Your task to perform on an android device: Clear the cart on walmart.com. Add usb-c to usb-a to the cart on walmart.com Image 0: 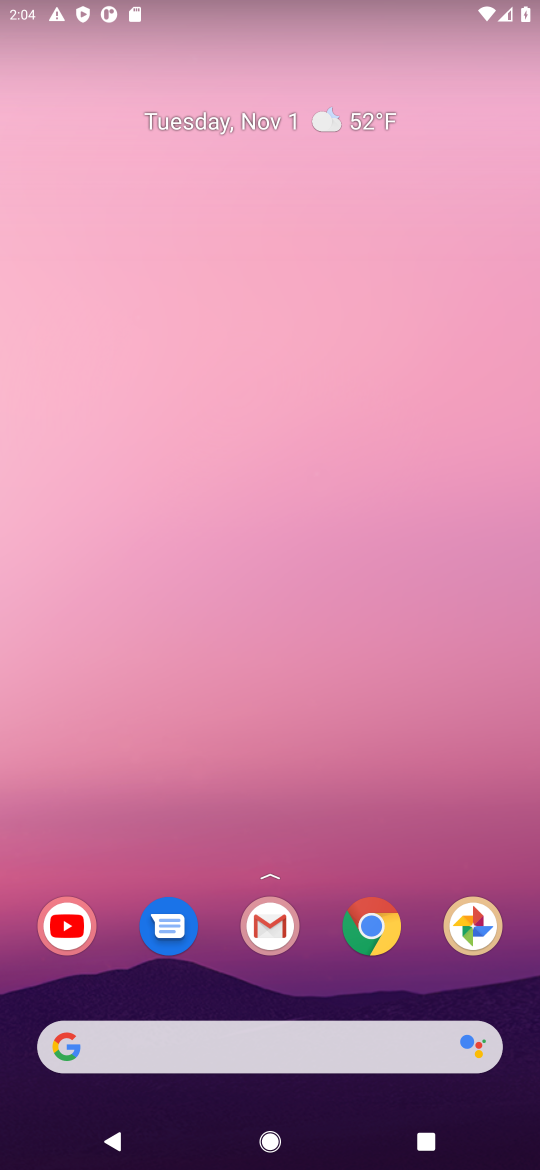
Step 0: click (377, 941)
Your task to perform on an android device: Clear the cart on walmart.com. Add usb-c to usb-a to the cart on walmart.com Image 1: 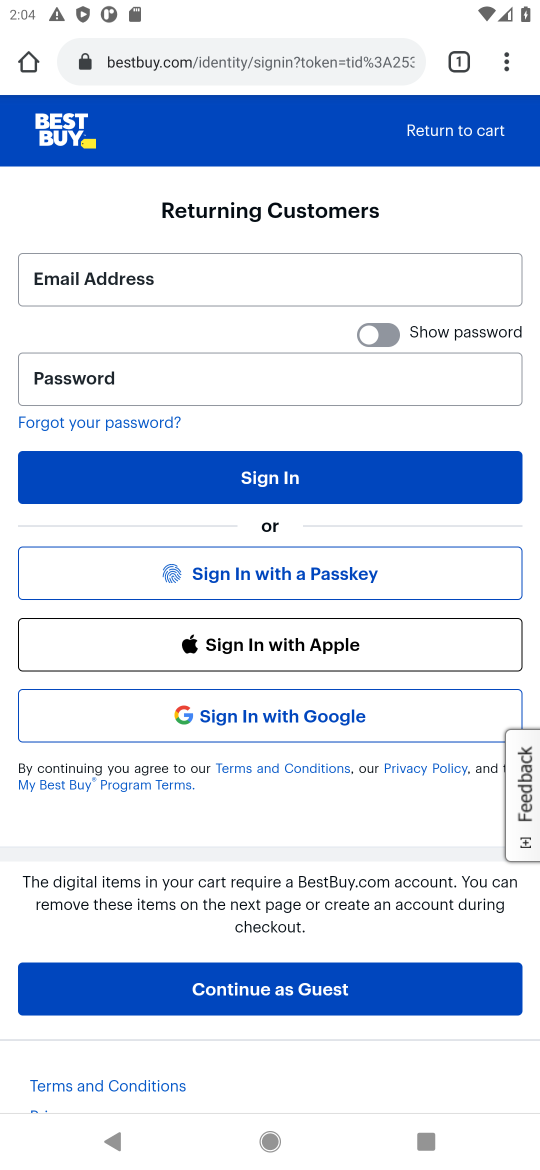
Step 1: click (256, 57)
Your task to perform on an android device: Clear the cart on walmart.com. Add usb-c to usb-a to the cart on walmart.com Image 2: 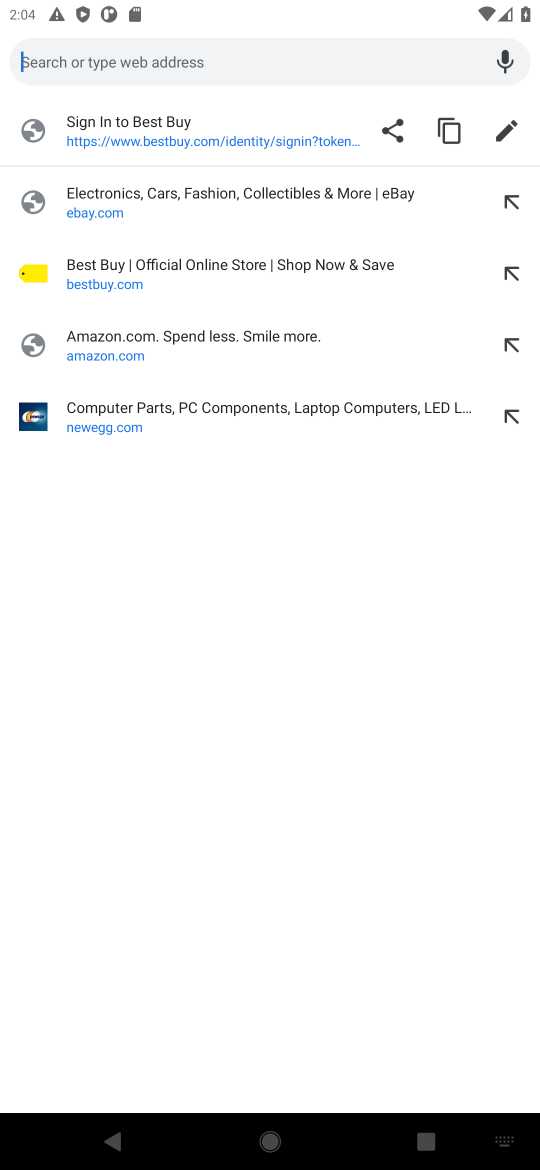
Step 2: type "walmart.com"
Your task to perform on an android device: Clear the cart on walmart.com. Add usb-c to usb-a to the cart on walmart.com Image 3: 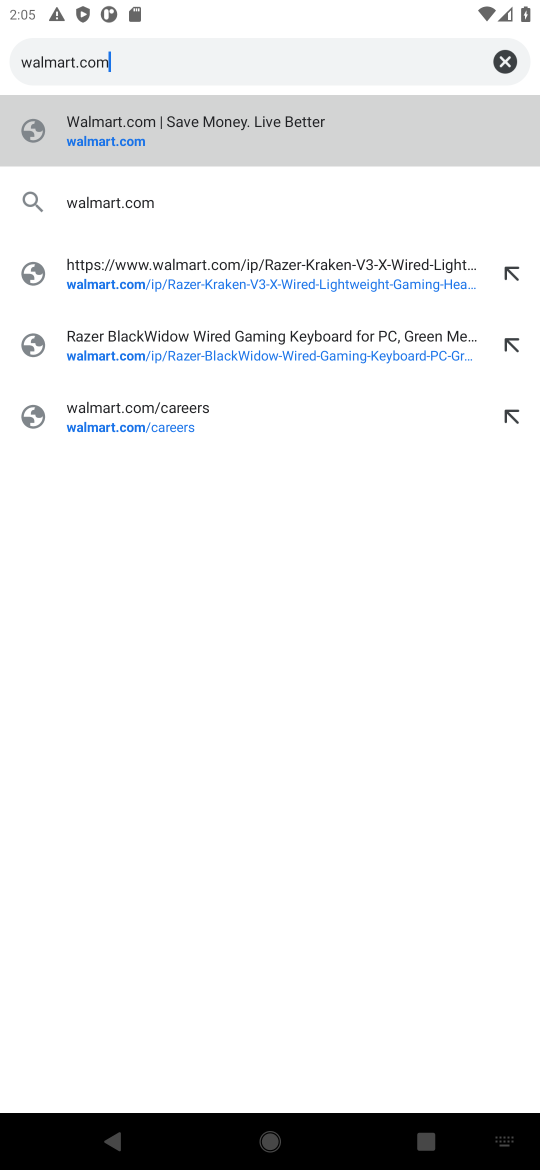
Step 3: press enter
Your task to perform on an android device: Clear the cart on walmart.com. Add usb-c to usb-a to the cart on walmart.com Image 4: 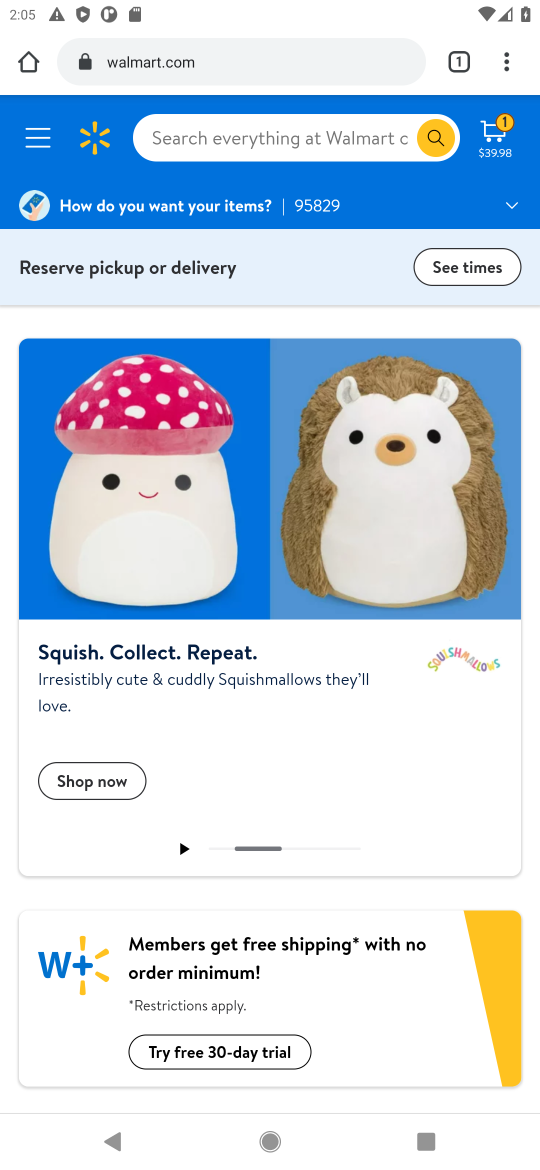
Step 4: click (503, 136)
Your task to perform on an android device: Clear the cart on walmart.com. Add usb-c to usb-a to the cart on walmart.com Image 5: 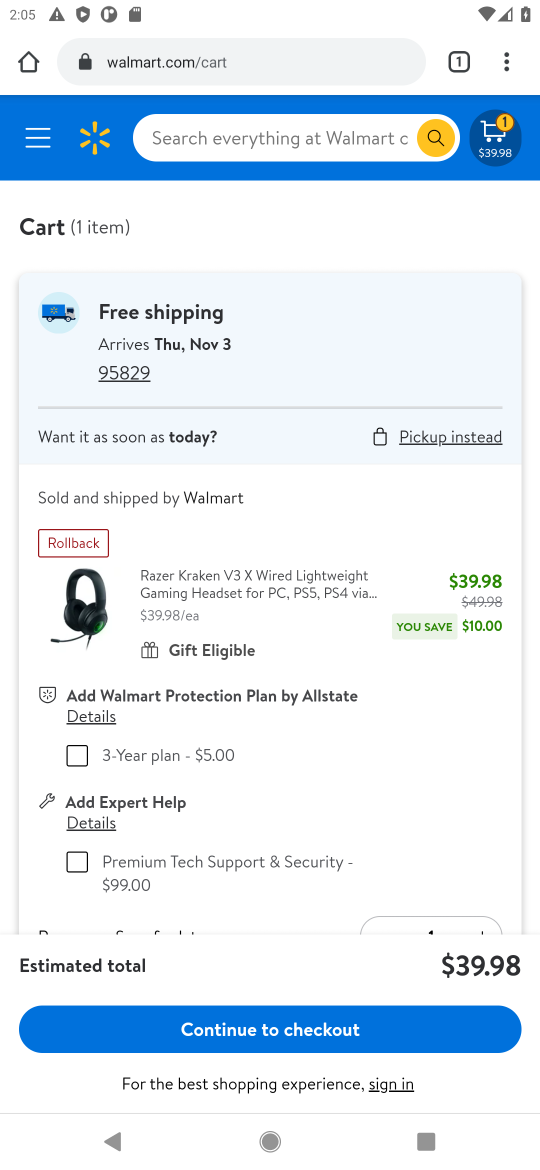
Step 5: drag from (376, 754) to (345, 583)
Your task to perform on an android device: Clear the cart on walmart.com. Add usb-c to usb-a to the cart on walmart.com Image 6: 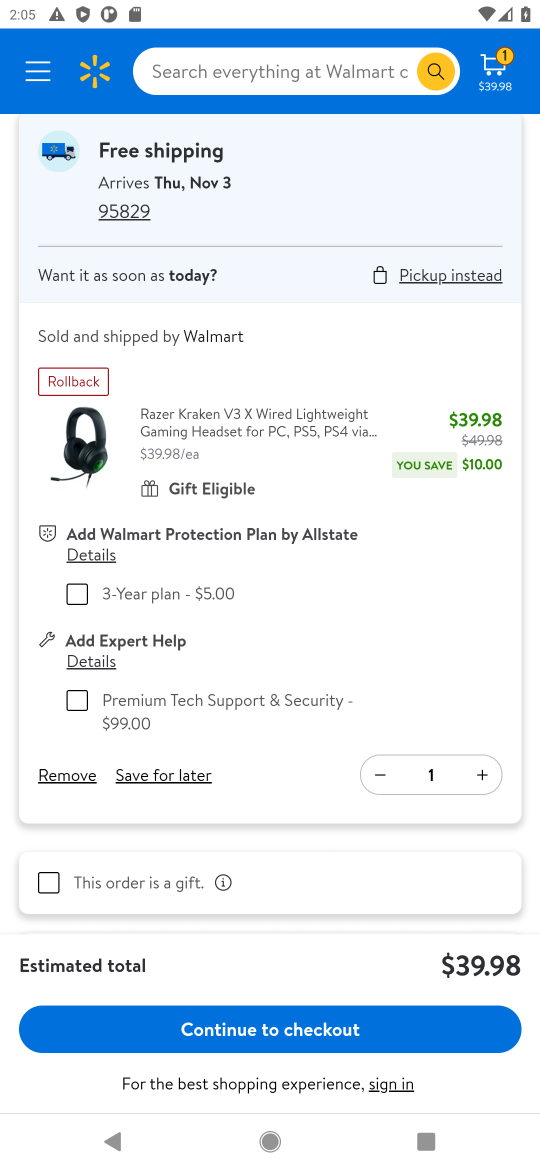
Step 6: click (57, 775)
Your task to perform on an android device: Clear the cart on walmart.com. Add usb-c to usb-a to the cart on walmart.com Image 7: 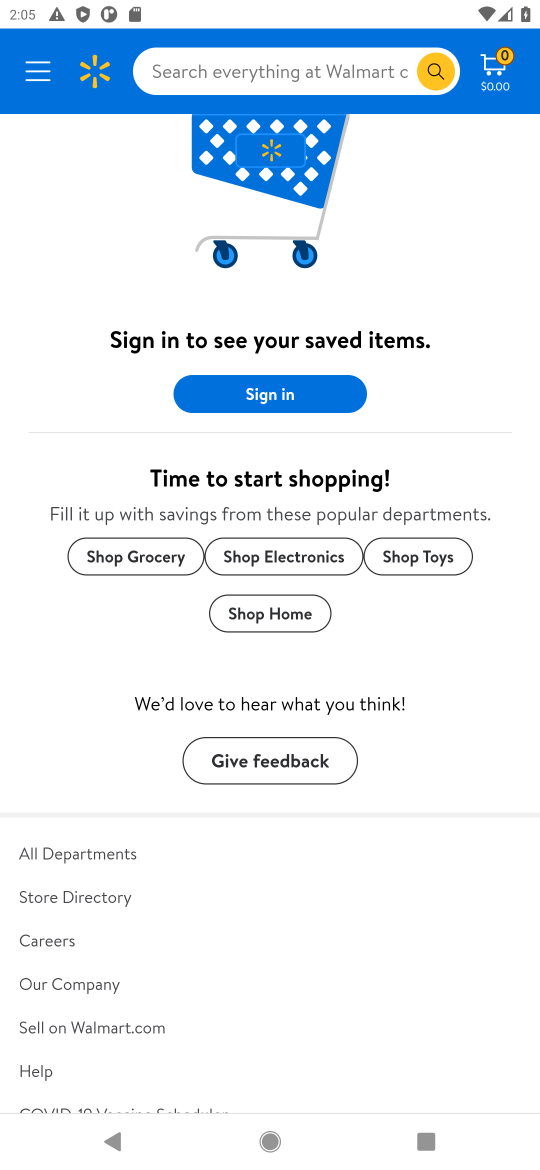
Step 7: click (332, 70)
Your task to perform on an android device: Clear the cart on walmart.com. Add usb-c to usb-a to the cart on walmart.com Image 8: 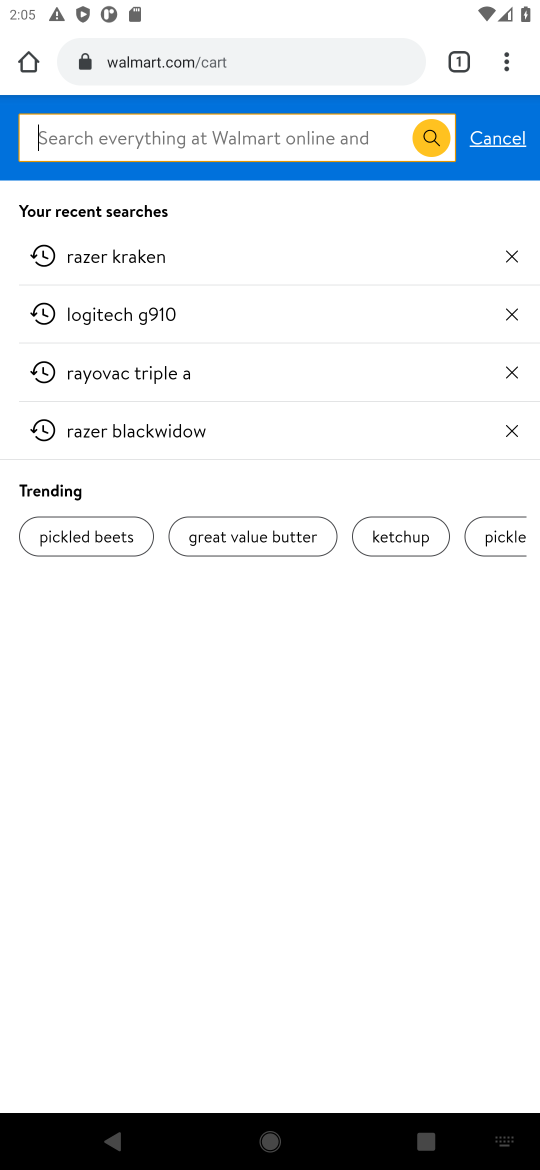
Step 8: type "usb-c to usb-a"
Your task to perform on an android device: Clear the cart on walmart.com. Add usb-c to usb-a to the cart on walmart.com Image 9: 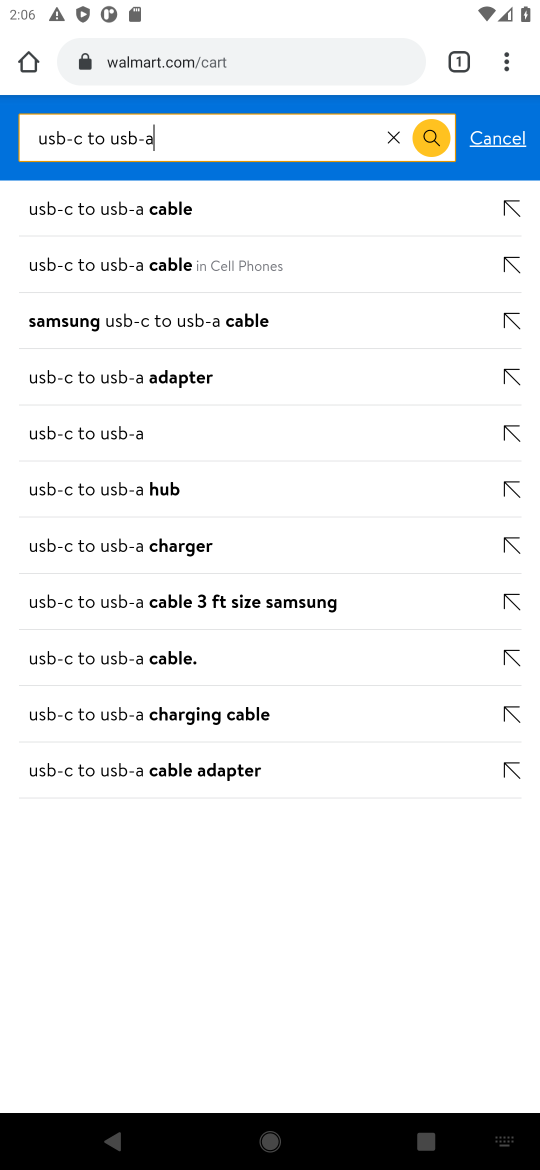
Step 9: press enter
Your task to perform on an android device: Clear the cart on walmart.com. Add usb-c to usb-a to the cart on walmart.com Image 10: 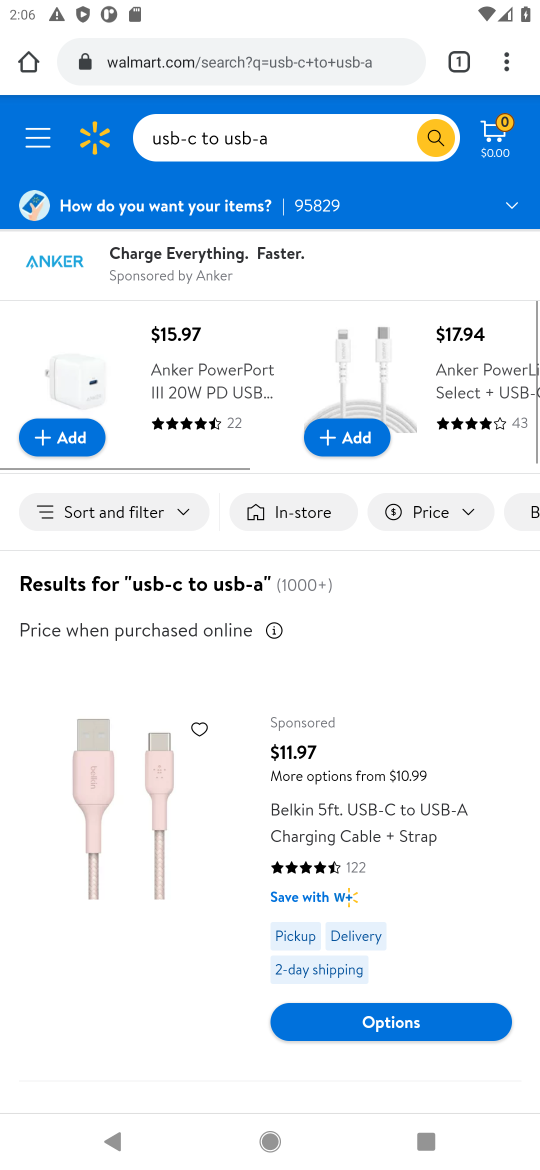
Step 10: click (198, 816)
Your task to perform on an android device: Clear the cart on walmart.com. Add usb-c to usb-a to the cart on walmart.com Image 11: 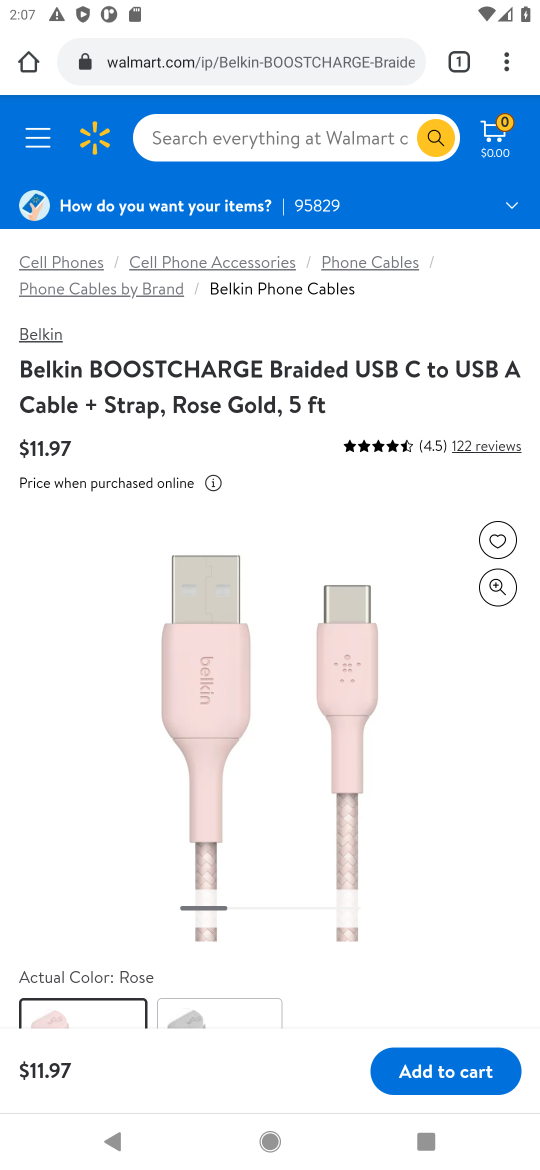
Step 11: task complete